Your task to perform on an android device: turn on bluetooth scan Image 0: 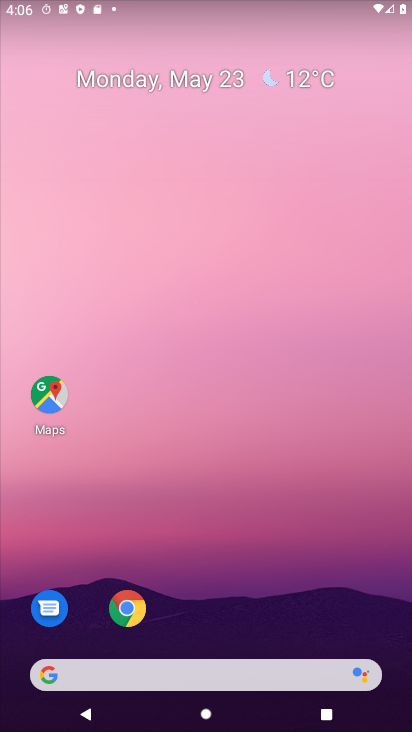
Step 0: drag from (309, 499) to (218, 5)
Your task to perform on an android device: turn on bluetooth scan Image 1: 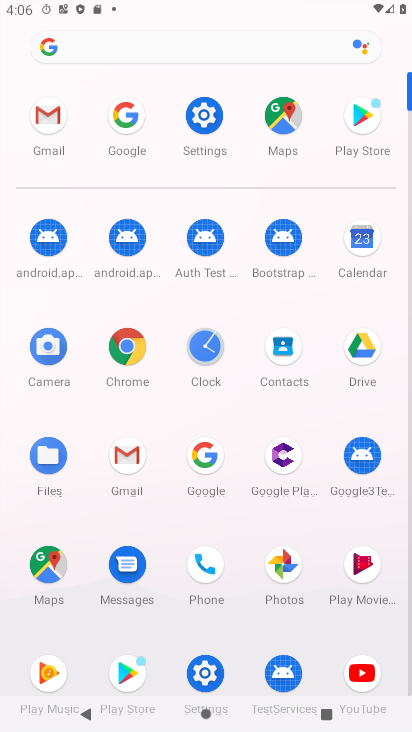
Step 1: click (203, 124)
Your task to perform on an android device: turn on bluetooth scan Image 2: 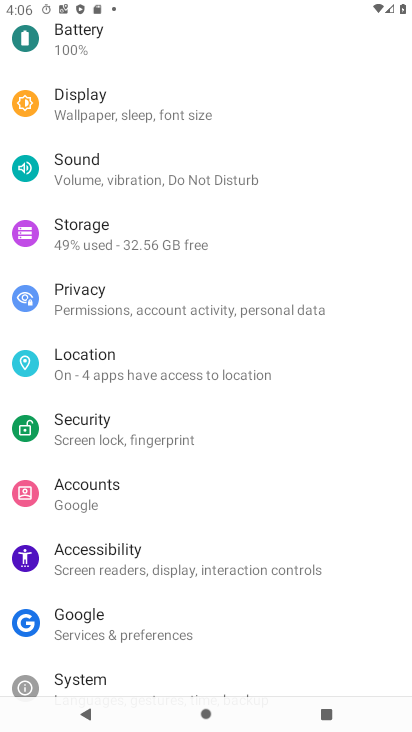
Step 2: click (182, 341)
Your task to perform on an android device: turn on bluetooth scan Image 3: 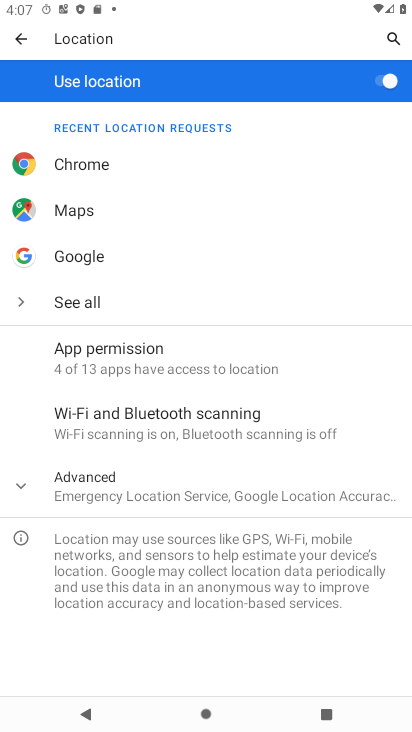
Step 3: click (264, 420)
Your task to perform on an android device: turn on bluetooth scan Image 4: 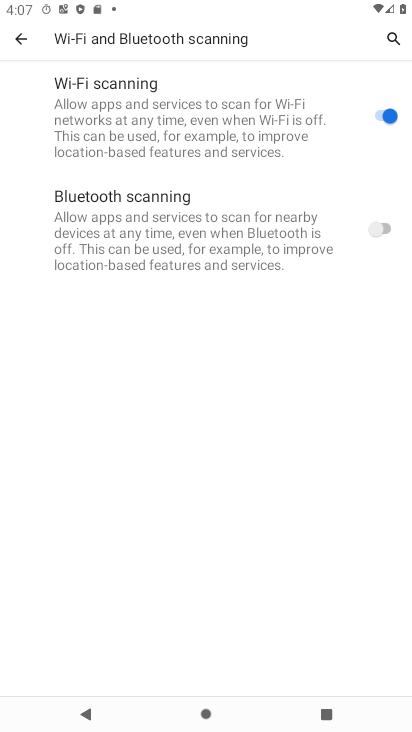
Step 4: click (363, 215)
Your task to perform on an android device: turn on bluetooth scan Image 5: 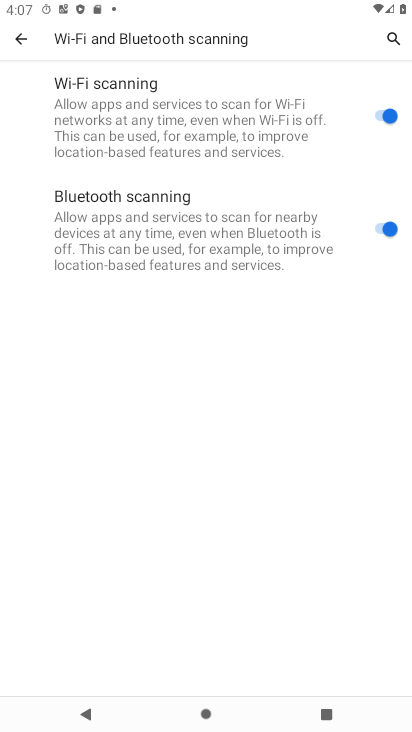
Step 5: task complete